Your task to perform on an android device: choose inbox layout in the gmail app Image 0: 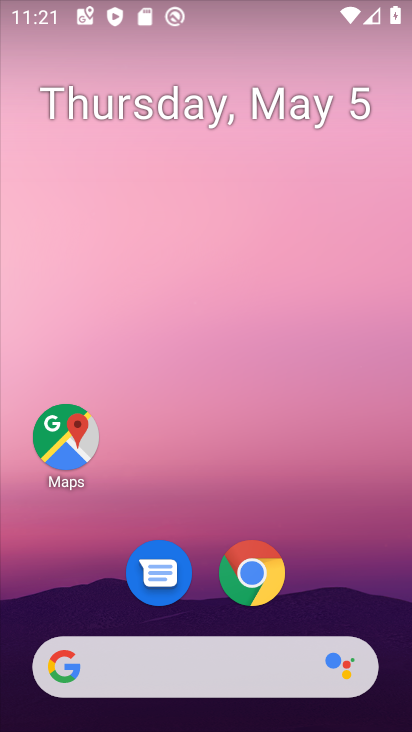
Step 0: drag from (326, 601) to (311, 231)
Your task to perform on an android device: choose inbox layout in the gmail app Image 1: 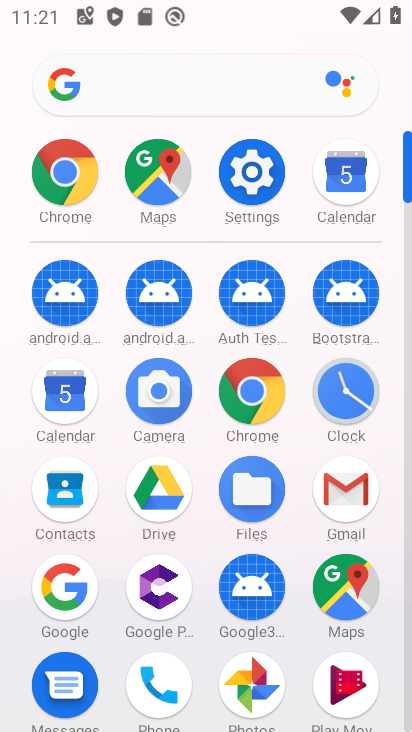
Step 1: click (361, 476)
Your task to perform on an android device: choose inbox layout in the gmail app Image 2: 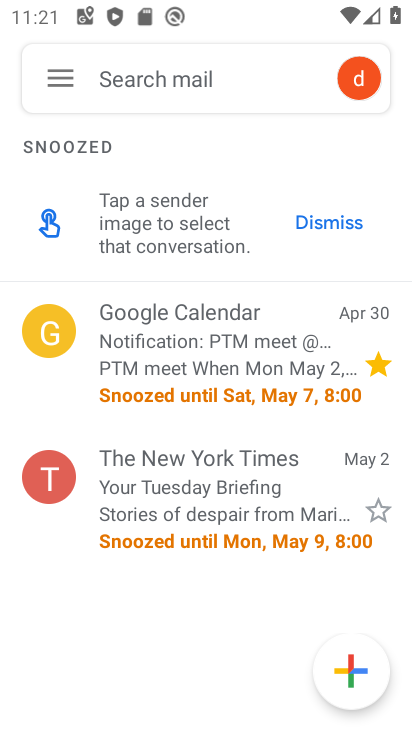
Step 2: click (66, 78)
Your task to perform on an android device: choose inbox layout in the gmail app Image 3: 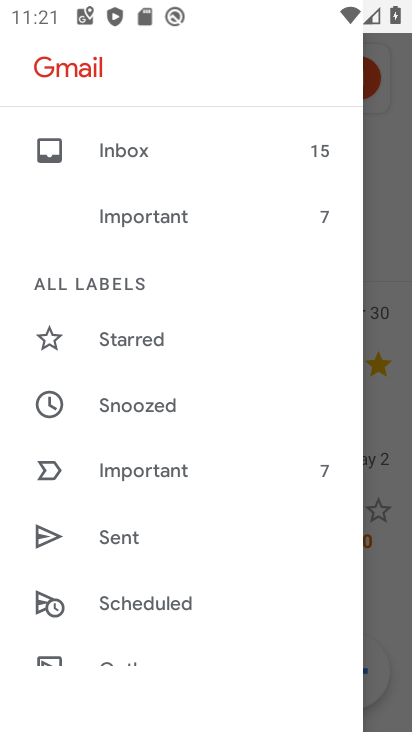
Step 3: drag from (159, 629) to (211, 226)
Your task to perform on an android device: choose inbox layout in the gmail app Image 4: 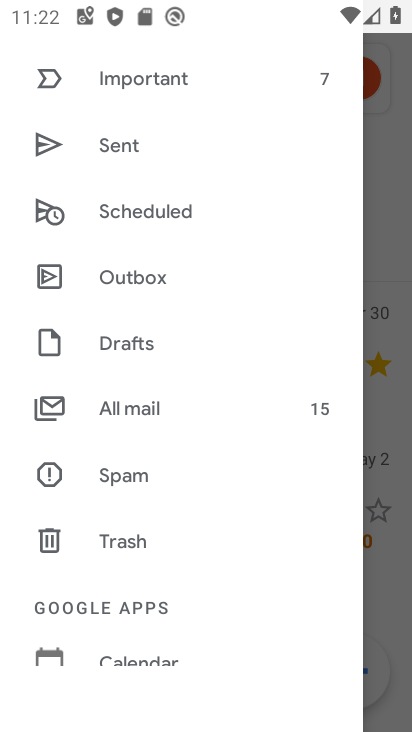
Step 4: drag from (189, 598) to (238, 229)
Your task to perform on an android device: choose inbox layout in the gmail app Image 5: 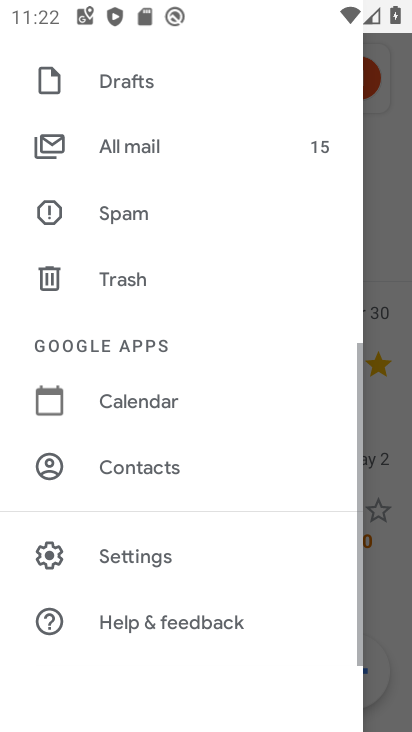
Step 5: click (158, 560)
Your task to perform on an android device: choose inbox layout in the gmail app Image 6: 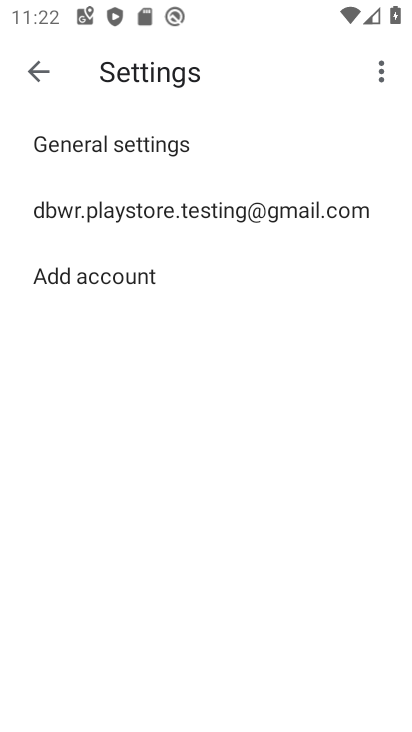
Step 6: click (200, 217)
Your task to perform on an android device: choose inbox layout in the gmail app Image 7: 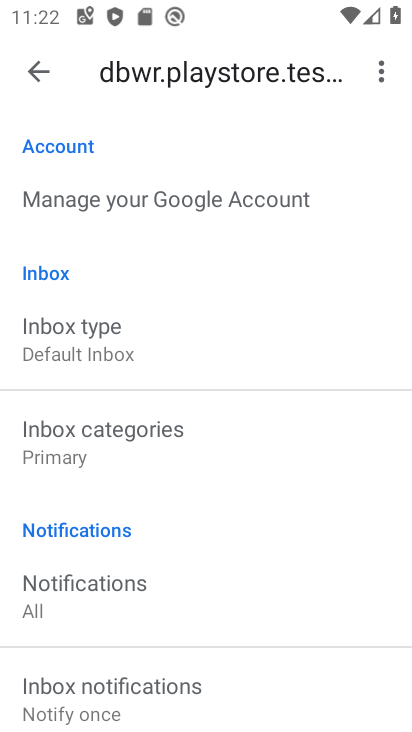
Step 7: click (128, 346)
Your task to perform on an android device: choose inbox layout in the gmail app Image 8: 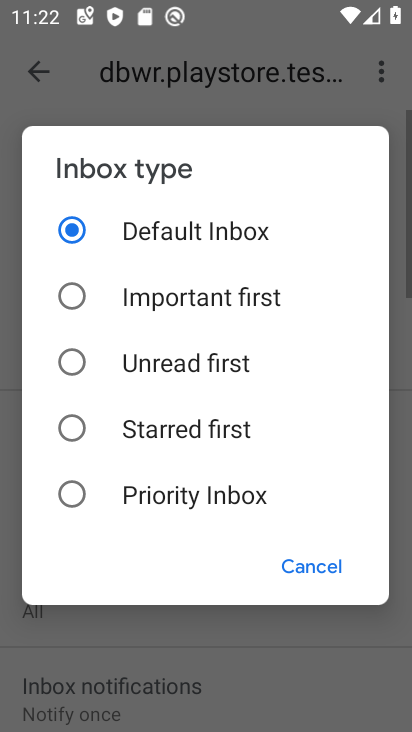
Step 8: click (164, 362)
Your task to perform on an android device: choose inbox layout in the gmail app Image 9: 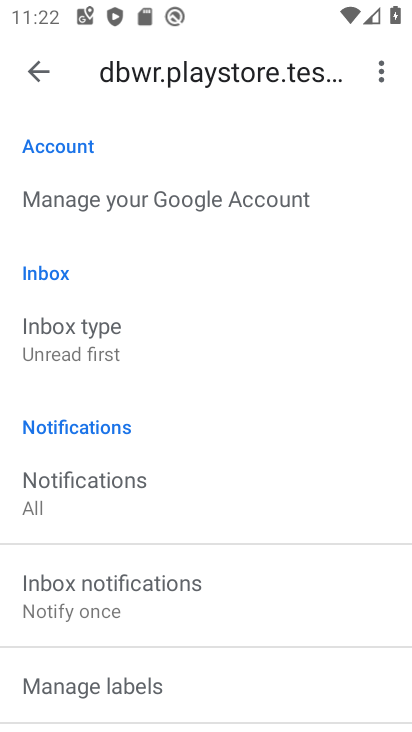
Step 9: task complete